Your task to perform on an android device: Check the news Image 0: 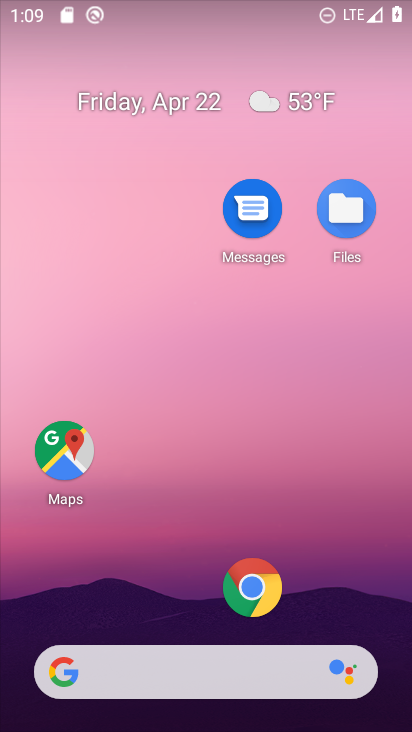
Step 0: click (252, 593)
Your task to perform on an android device: Check the news Image 1: 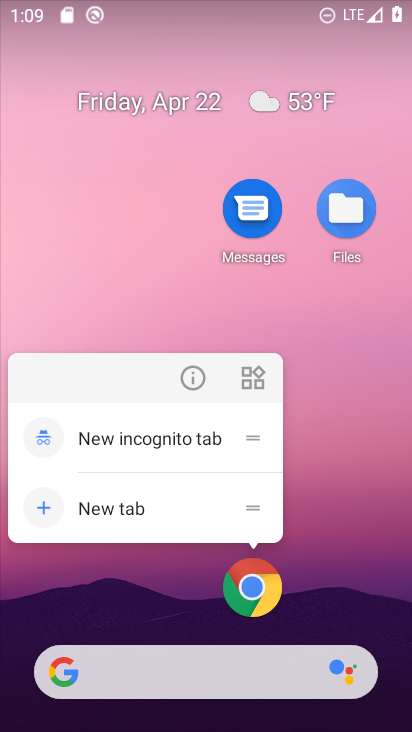
Step 1: click (196, 370)
Your task to perform on an android device: Check the news Image 2: 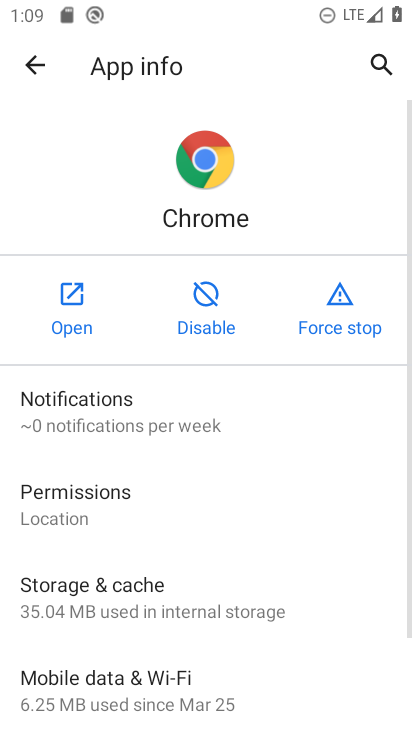
Step 2: click (76, 324)
Your task to perform on an android device: Check the news Image 3: 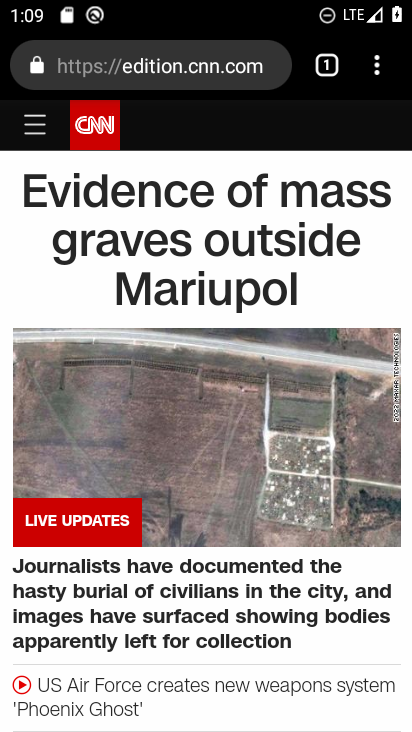
Step 3: click (170, 73)
Your task to perform on an android device: Check the news Image 4: 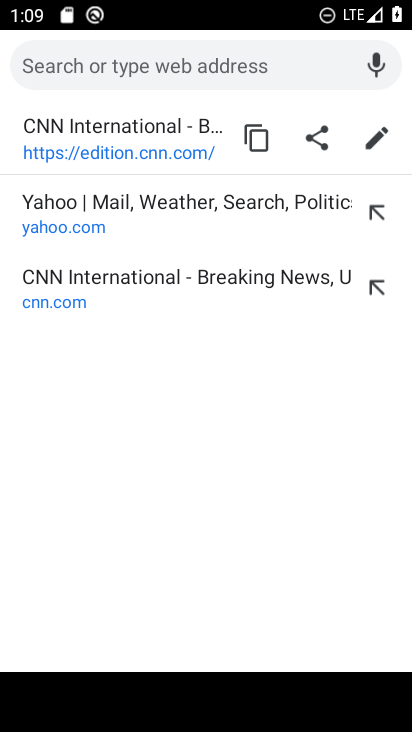
Step 4: type "news"
Your task to perform on an android device: Check the news Image 5: 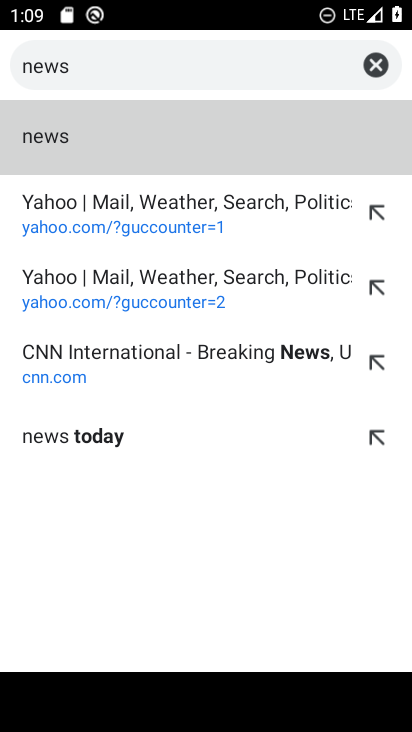
Step 5: click (125, 159)
Your task to perform on an android device: Check the news Image 6: 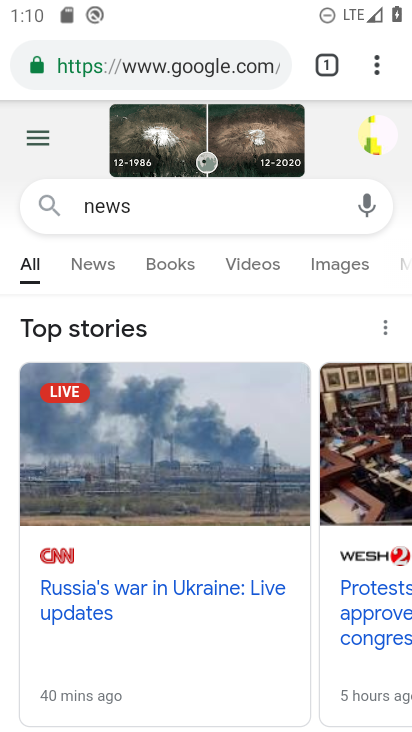
Step 6: task complete